Your task to perform on an android device: Go to calendar. Show me events next week Image 0: 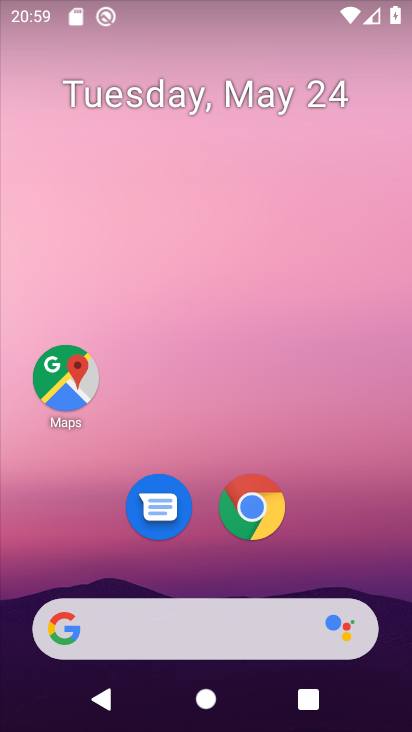
Step 0: drag from (196, 563) to (224, 372)
Your task to perform on an android device: Go to calendar. Show me events next week Image 1: 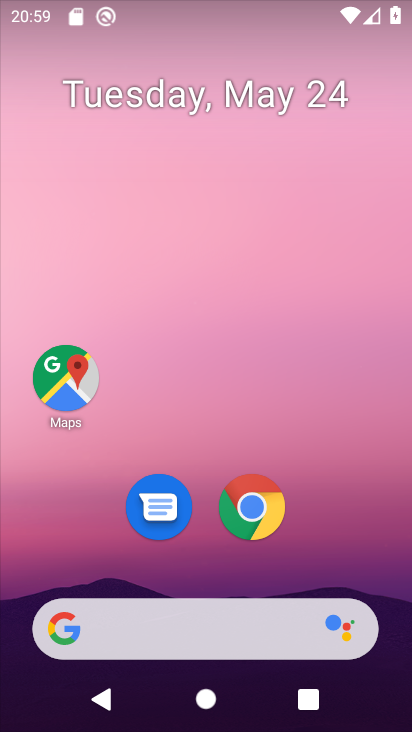
Step 1: drag from (185, 572) to (150, 0)
Your task to perform on an android device: Go to calendar. Show me events next week Image 2: 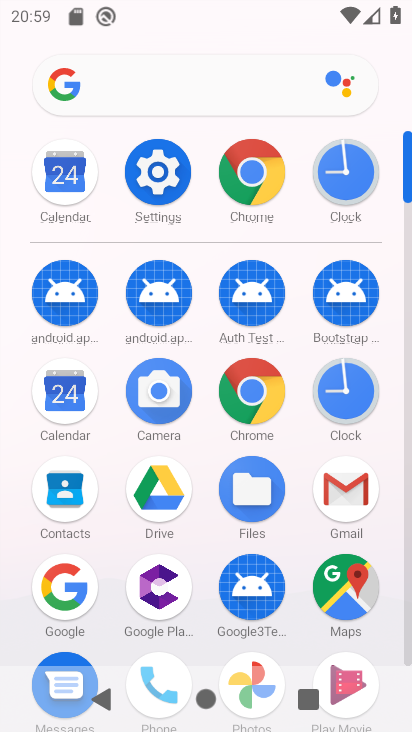
Step 2: click (62, 377)
Your task to perform on an android device: Go to calendar. Show me events next week Image 3: 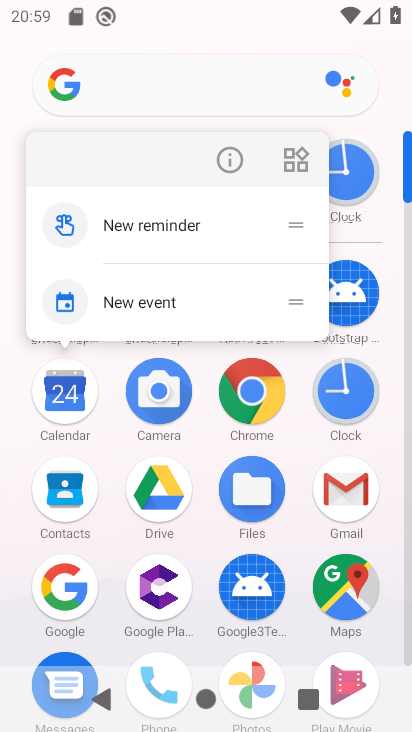
Step 3: click (223, 168)
Your task to perform on an android device: Go to calendar. Show me events next week Image 4: 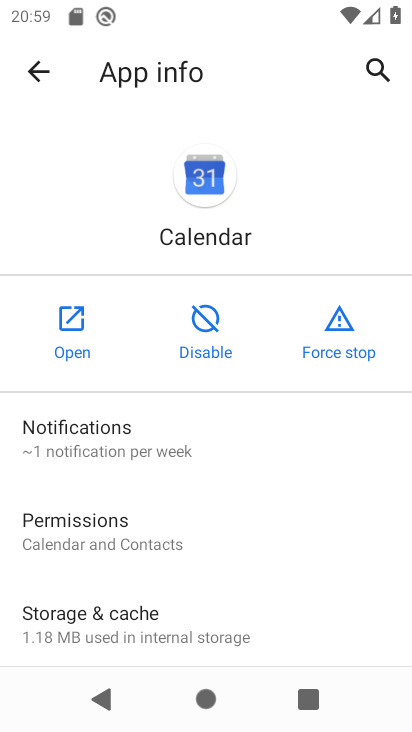
Step 4: click (98, 311)
Your task to perform on an android device: Go to calendar. Show me events next week Image 5: 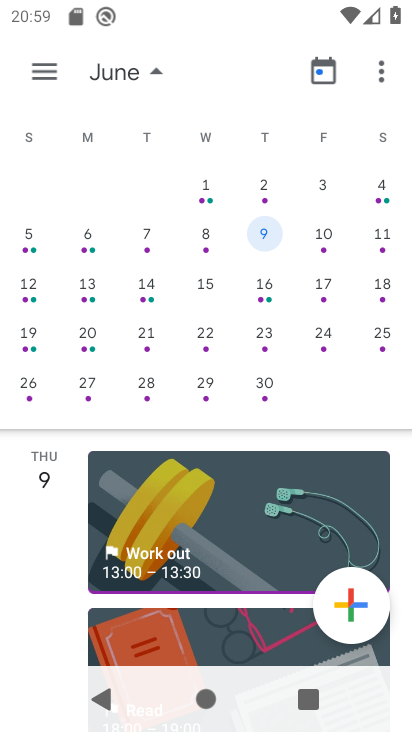
Step 5: click (307, 479)
Your task to perform on an android device: Go to calendar. Show me events next week Image 6: 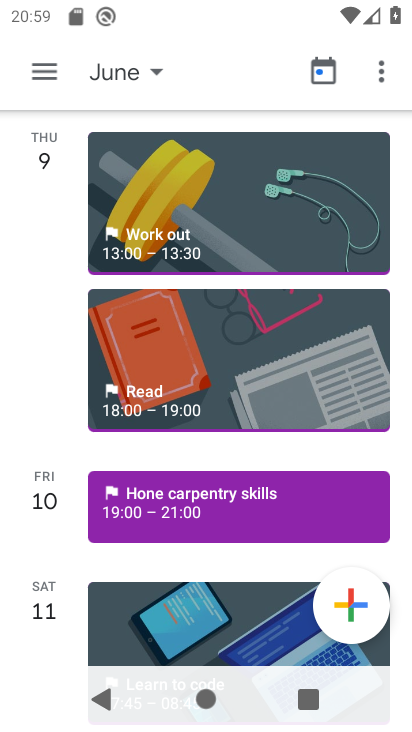
Step 6: click (128, 62)
Your task to perform on an android device: Go to calendar. Show me events next week Image 7: 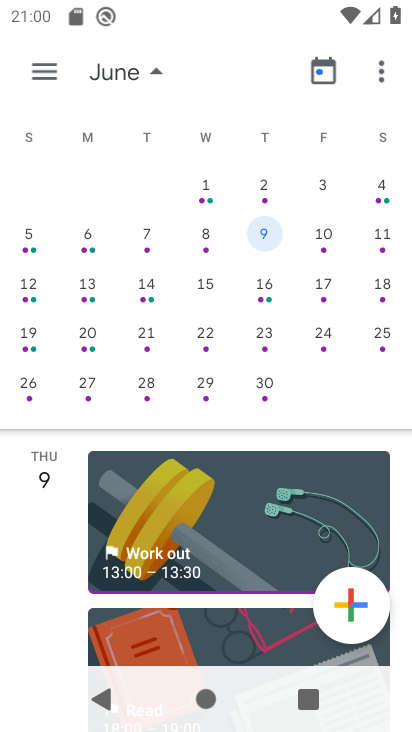
Step 7: drag from (26, 307) to (411, 255)
Your task to perform on an android device: Go to calendar. Show me events next week Image 8: 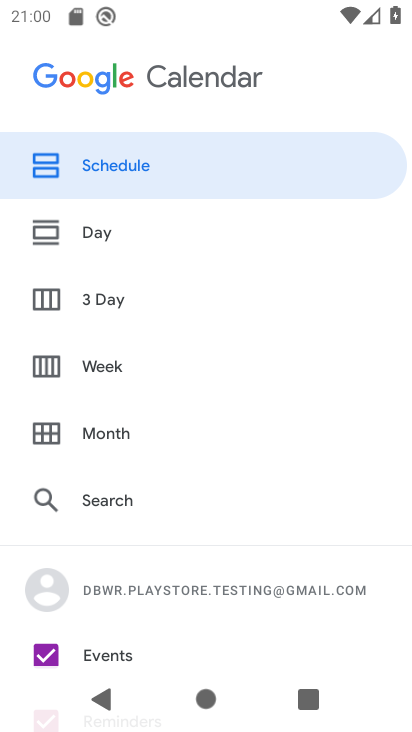
Step 8: drag from (140, 552) to (244, 220)
Your task to perform on an android device: Go to calendar. Show me events next week Image 9: 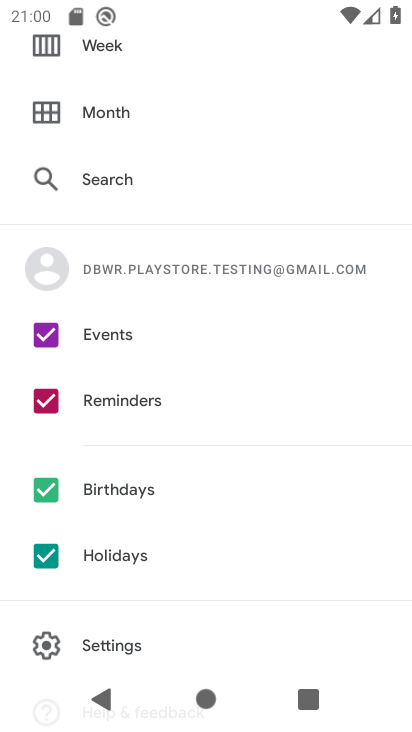
Step 9: drag from (243, 222) to (281, 604)
Your task to perform on an android device: Go to calendar. Show me events next week Image 10: 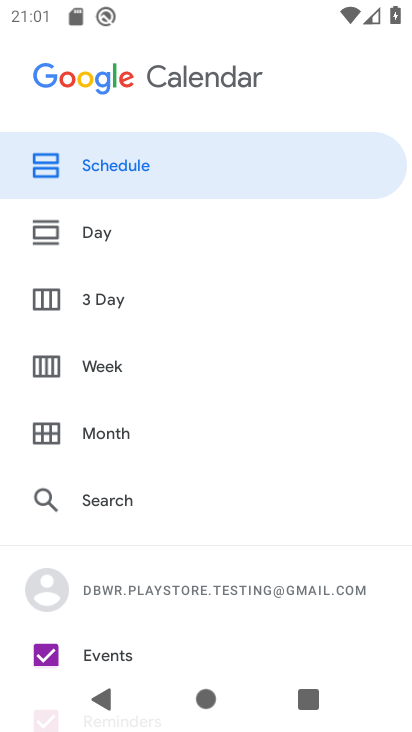
Step 10: drag from (264, 612) to (325, 124)
Your task to perform on an android device: Go to calendar. Show me events next week Image 11: 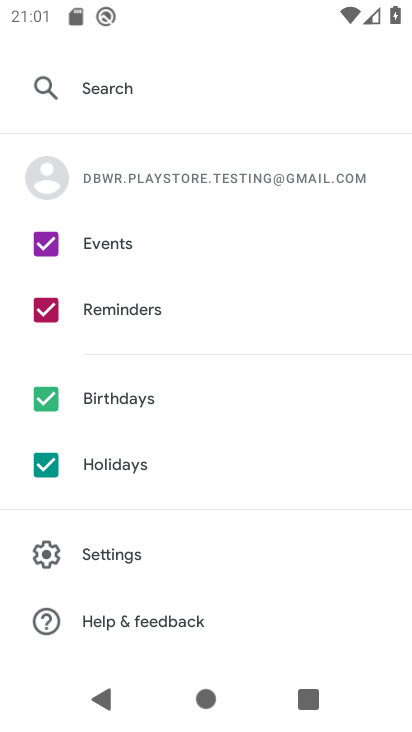
Step 11: press back button
Your task to perform on an android device: Go to calendar. Show me events next week Image 12: 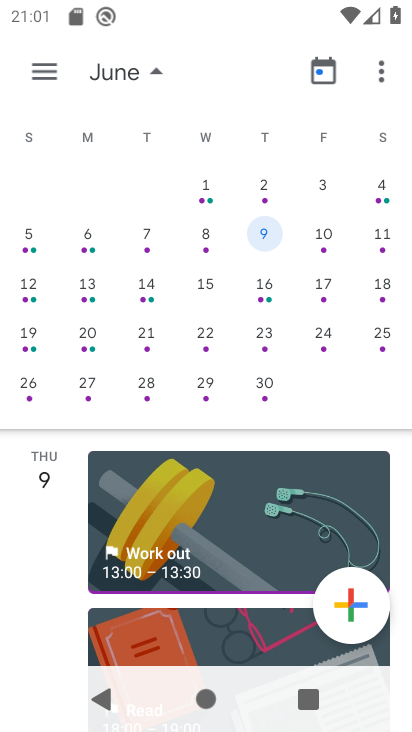
Step 12: drag from (64, 336) to (409, 273)
Your task to perform on an android device: Go to calendar. Show me events next week Image 13: 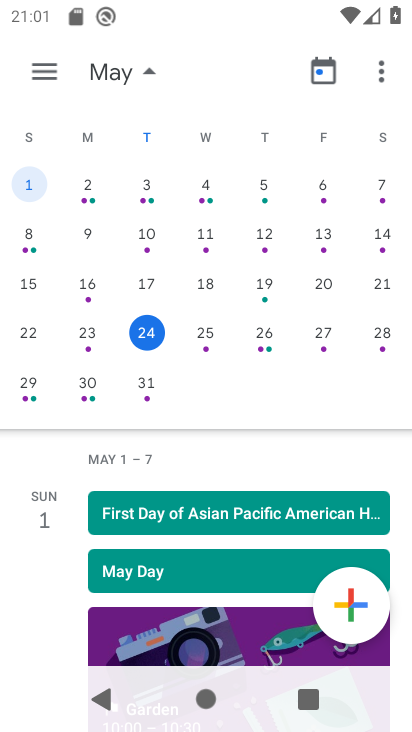
Step 13: click (98, 389)
Your task to perform on an android device: Go to calendar. Show me events next week Image 14: 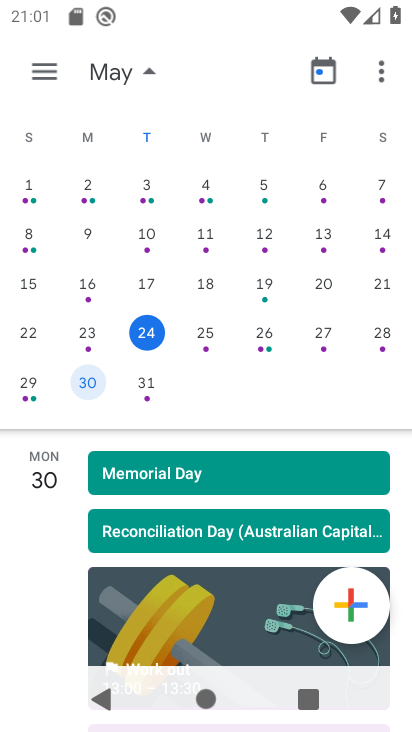
Step 14: task complete